Your task to perform on an android device: check storage Image 0: 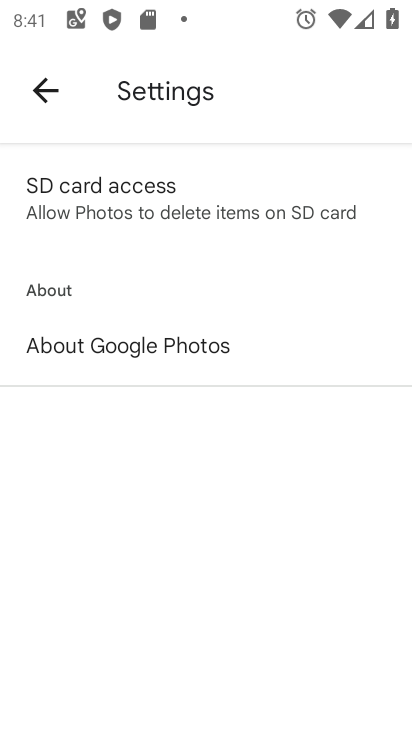
Step 0: press home button
Your task to perform on an android device: check storage Image 1: 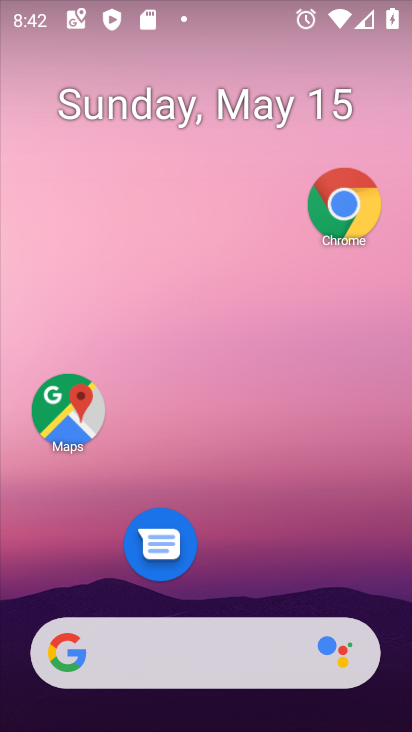
Step 1: drag from (284, 596) to (149, 56)
Your task to perform on an android device: check storage Image 2: 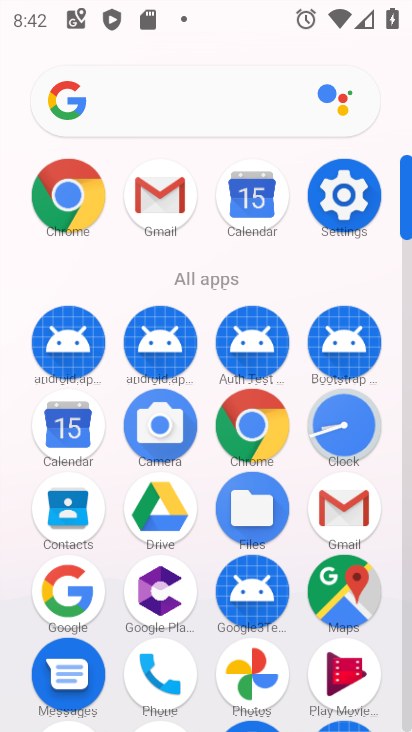
Step 2: click (334, 209)
Your task to perform on an android device: check storage Image 3: 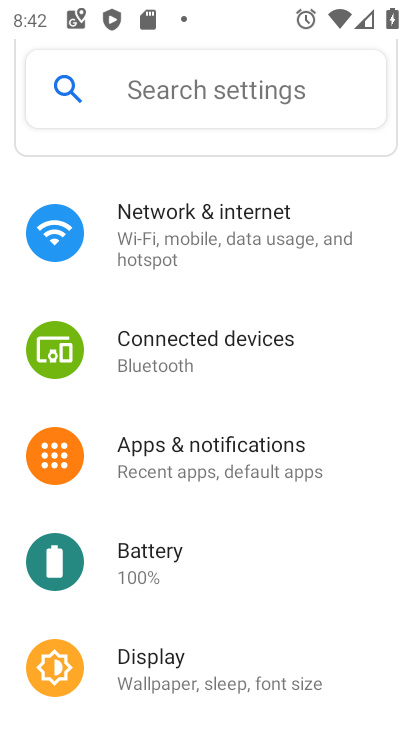
Step 3: drag from (232, 596) to (218, 270)
Your task to perform on an android device: check storage Image 4: 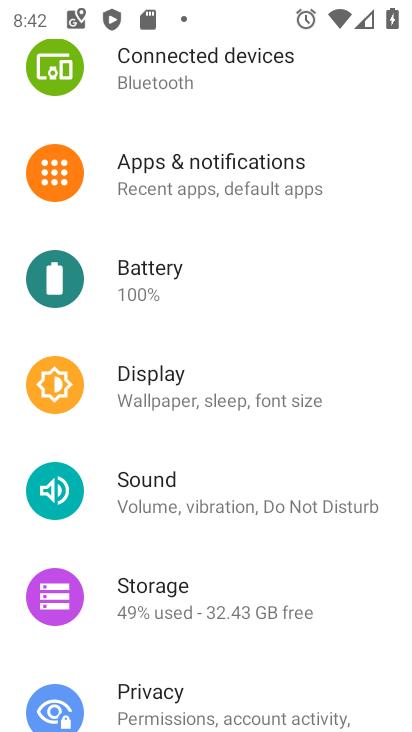
Step 4: click (178, 588)
Your task to perform on an android device: check storage Image 5: 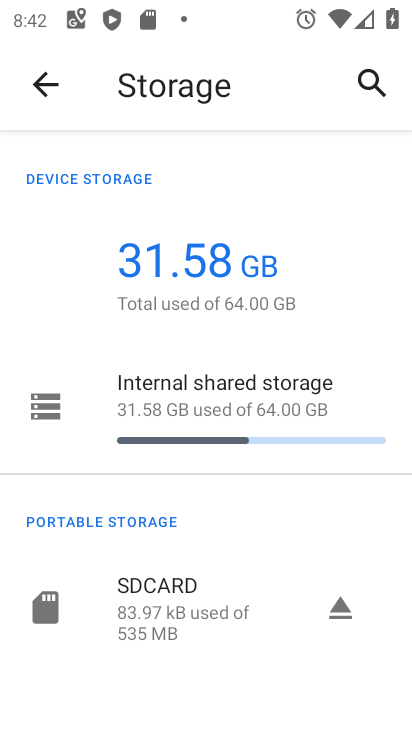
Step 5: task complete